Your task to perform on an android device: open app "Nova Launcher" (install if not already installed) Image 0: 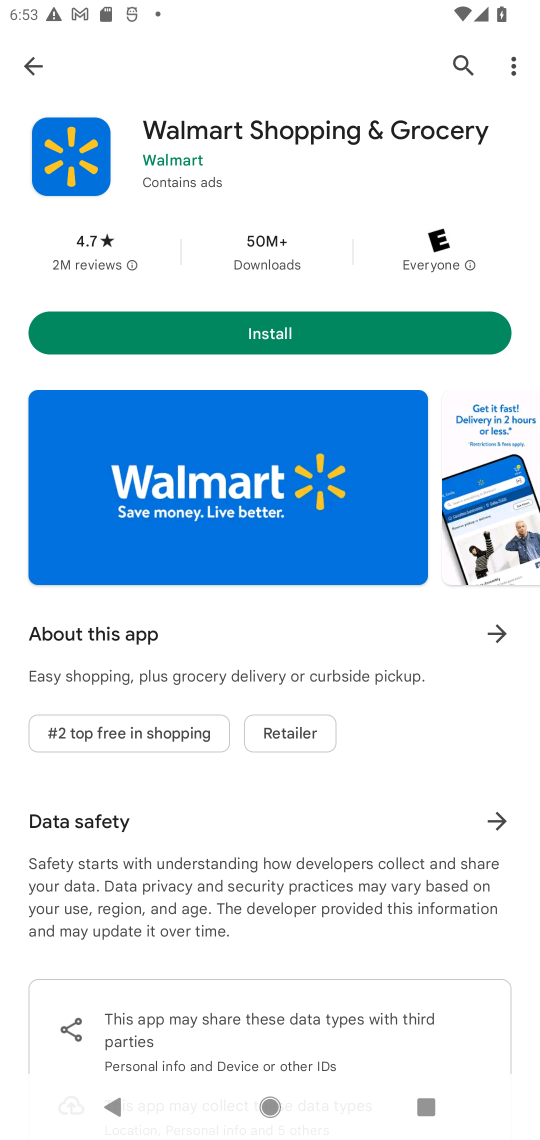
Step 0: click (460, 59)
Your task to perform on an android device: open app "Nova Launcher" (install if not already installed) Image 1: 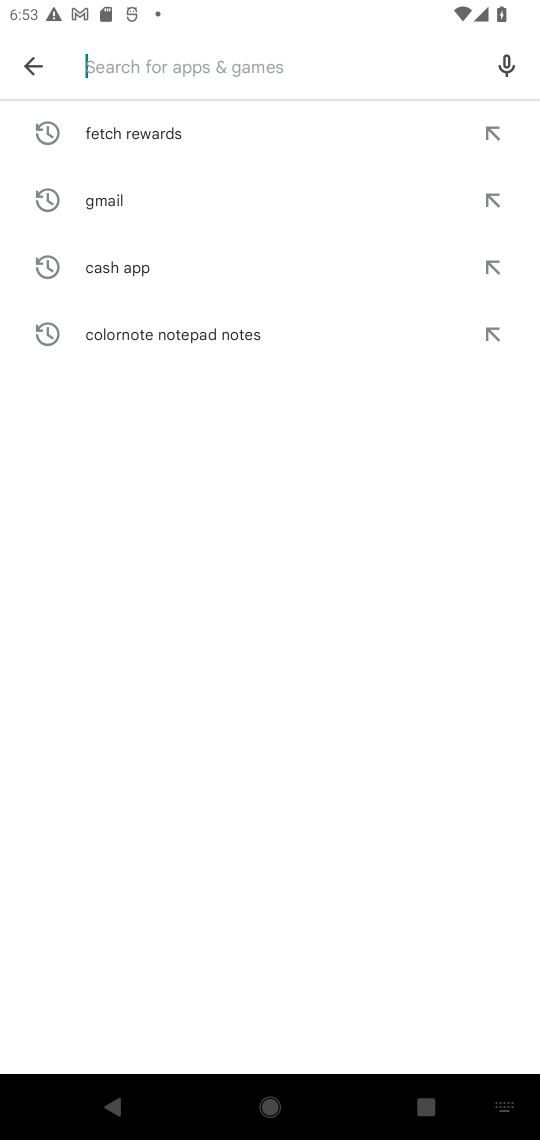
Step 1: type "Nova Launcher"
Your task to perform on an android device: open app "Nova Launcher" (install if not already installed) Image 2: 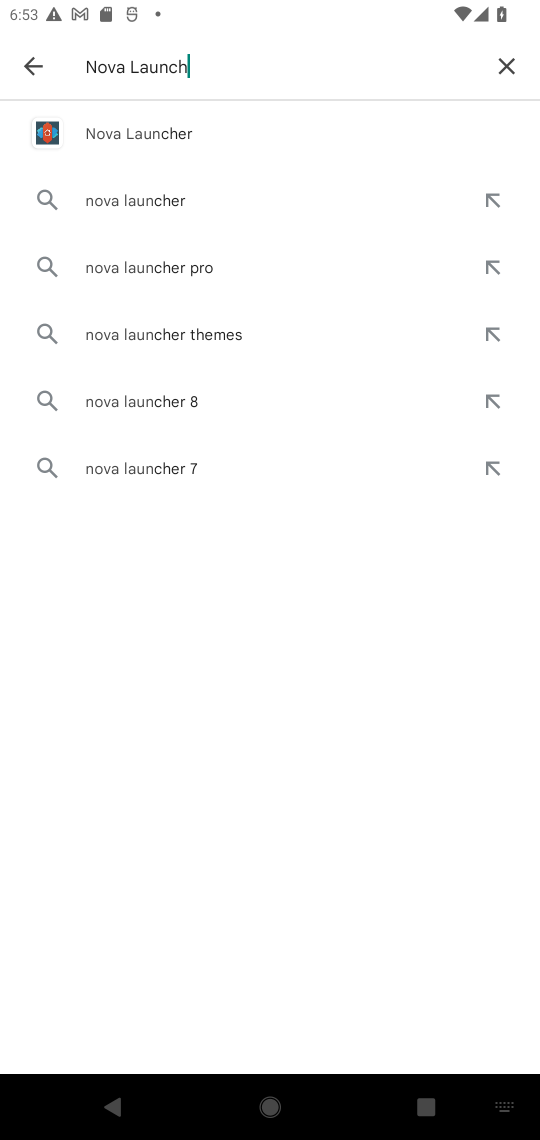
Step 2: type ""
Your task to perform on an android device: open app "Nova Launcher" (install if not already installed) Image 3: 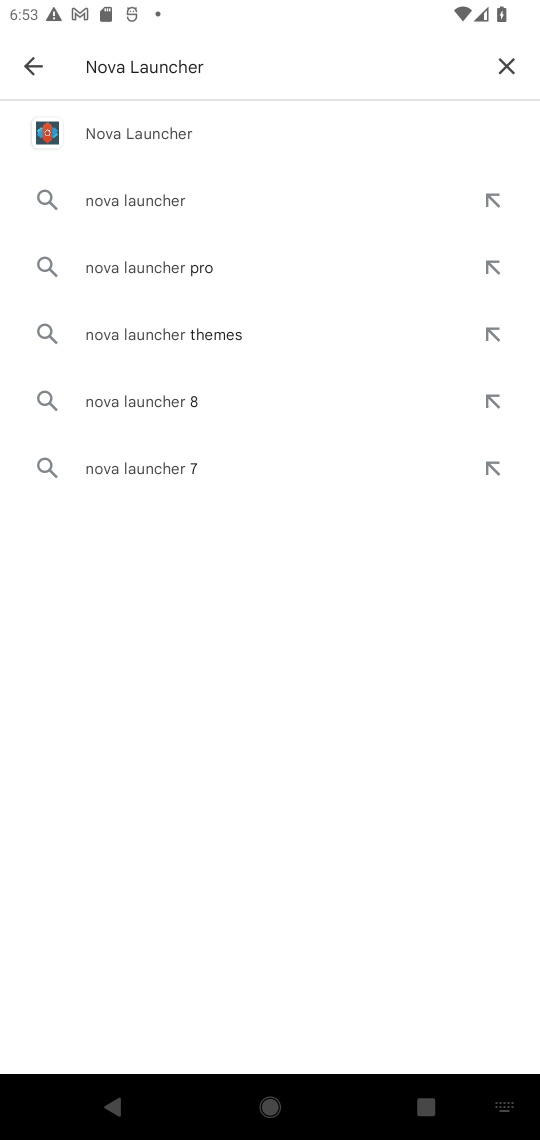
Step 3: click (212, 145)
Your task to perform on an android device: open app "Nova Launcher" (install if not already installed) Image 4: 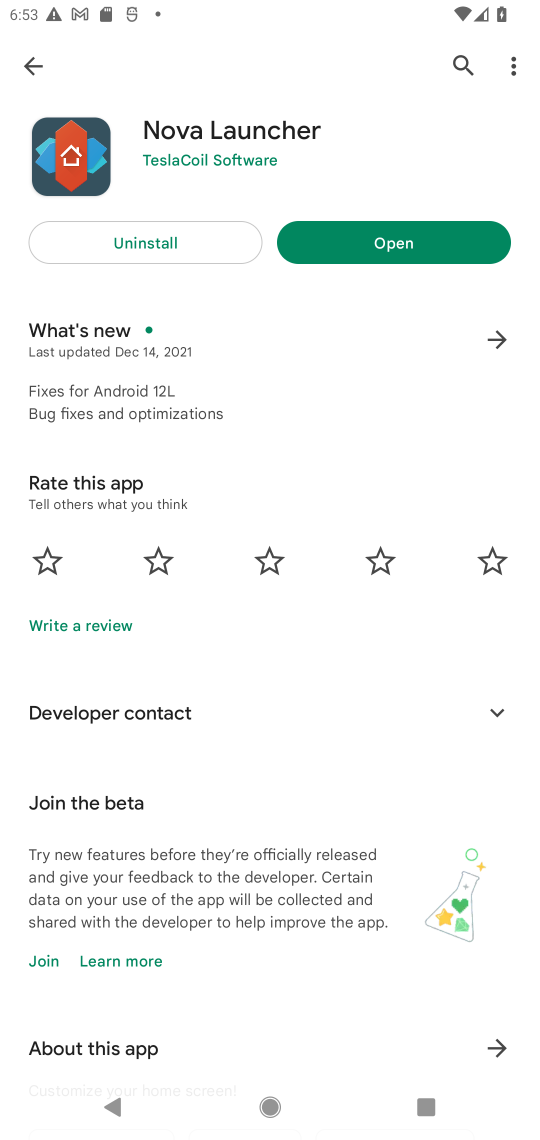
Step 4: click (355, 237)
Your task to perform on an android device: open app "Nova Launcher" (install if not already installed) Image 5: 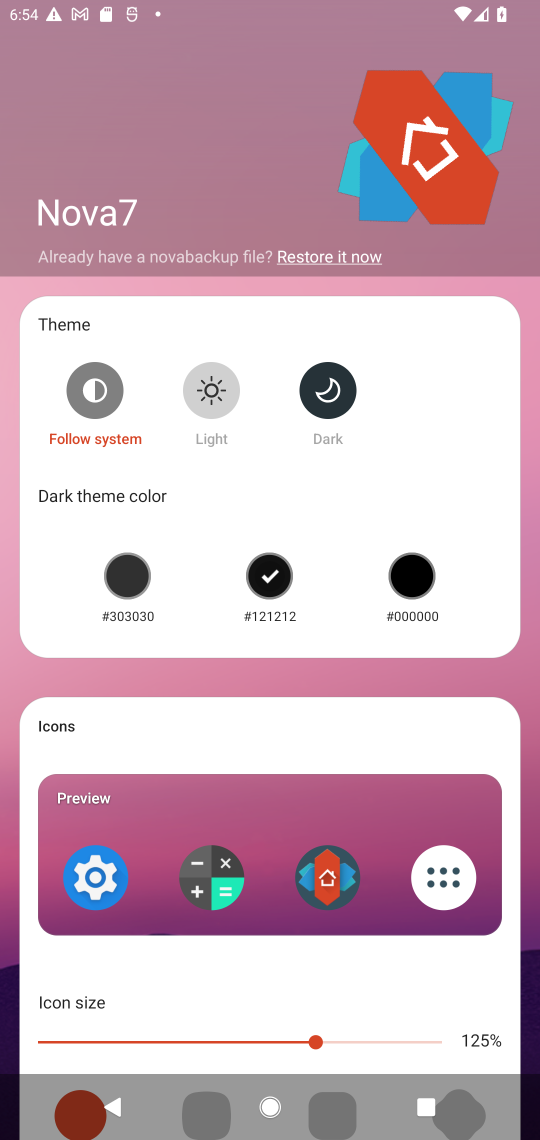
Step 5: task complete